Your task to perform on an android device: uninstall "Flipkart Online Shopping App" Image 0: 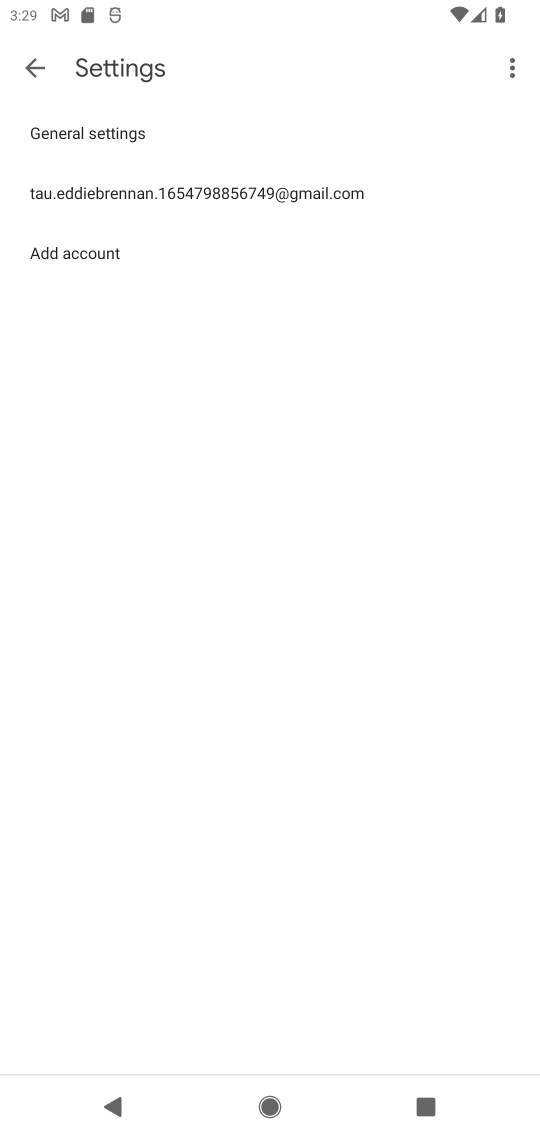
Step 0: click (18, 90)
Your task to perform on an android device: uninstall "Flipkart Online Shopping App" Image 1: 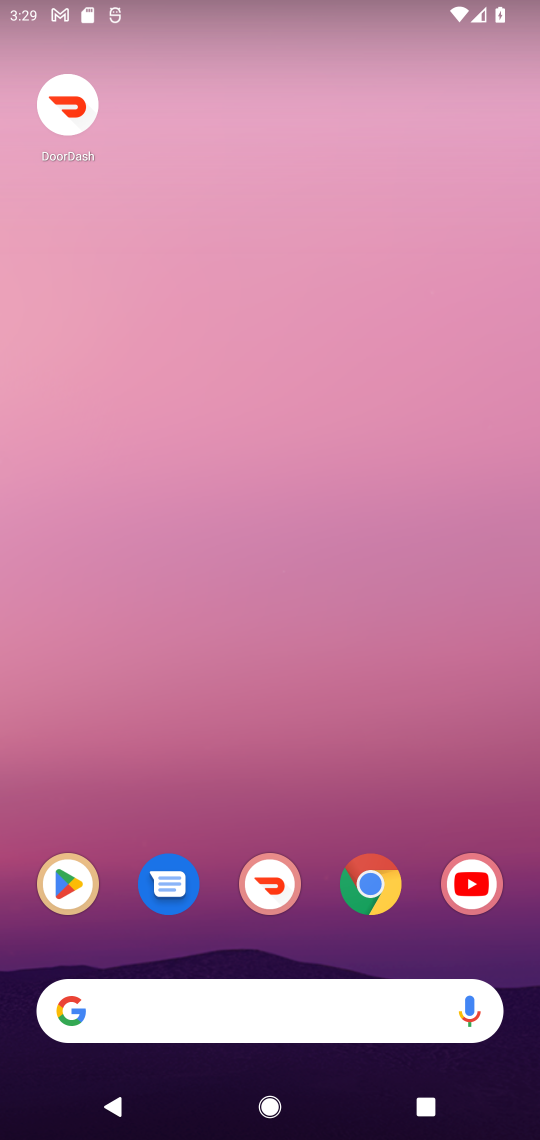
Step 1: drag from (308, 1026) to (197, 266)
Your task to perform on an android device: uninstall "Flipkart Online Shopping App" Image 2: 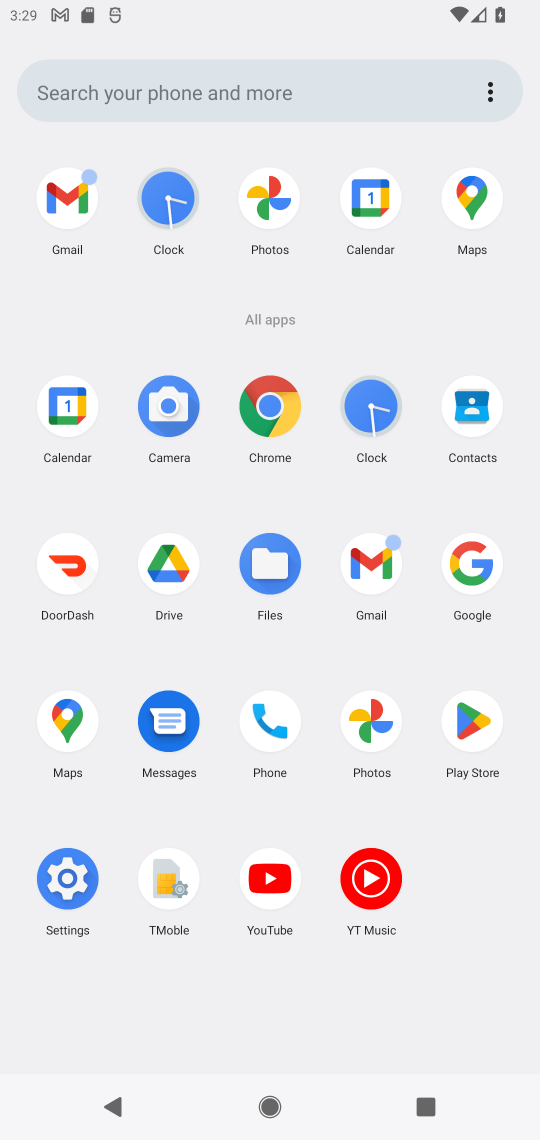
Step 2: click (470, 716)
Your task to perform on an android device: uninstall "Flipkart Online Shopping App" Image 3: 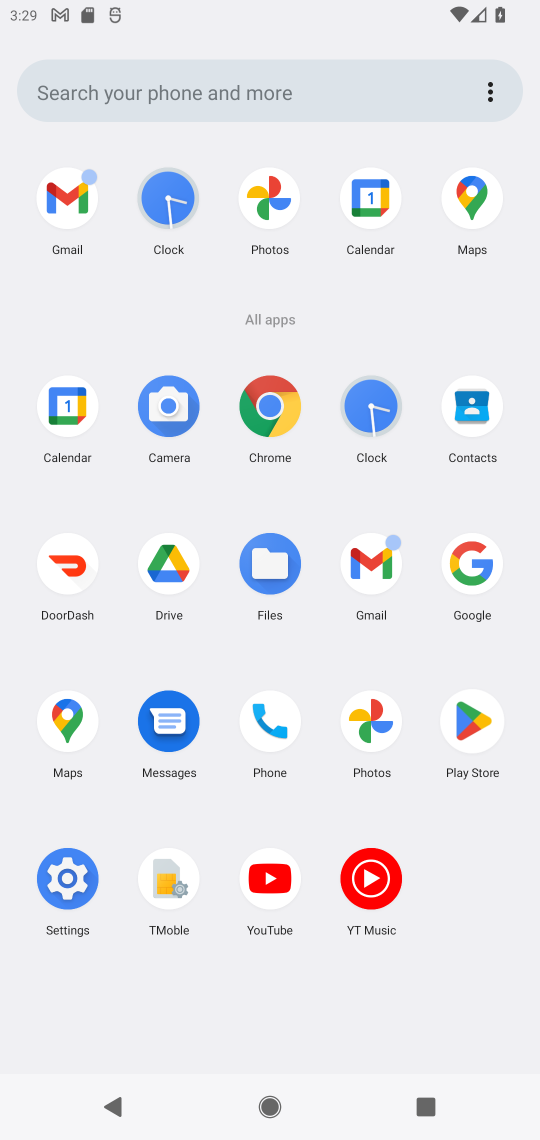
Step 3: click (469, 716)
Your task to perform on an android device: uninstall "Flipkart Online Shopping App" Image 4: 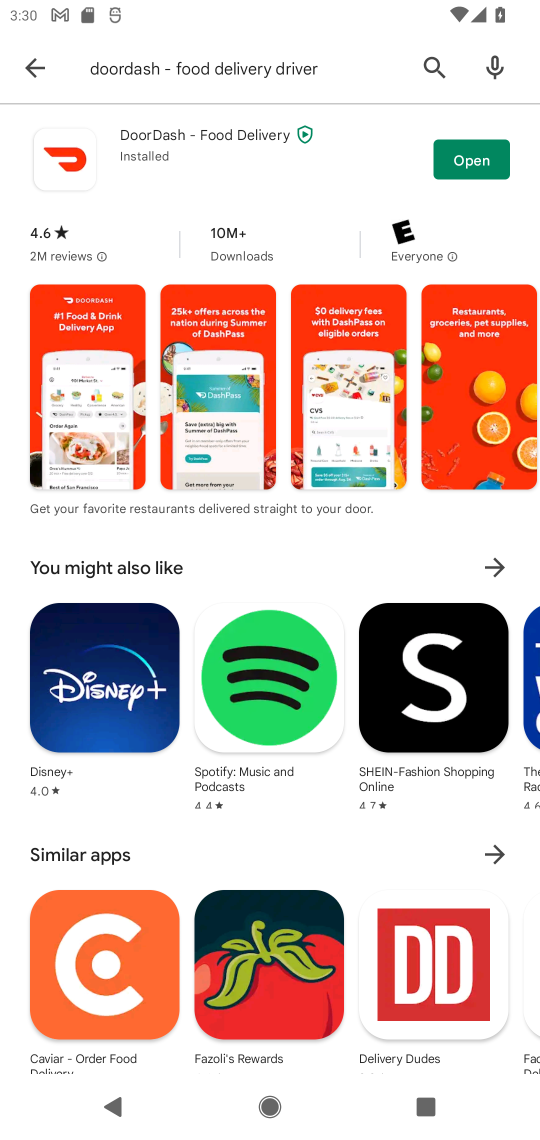
Step 4: click (28, 62)
Your task to perform on an android device: uninstall "Flipkart Online Shopping App" Image 5: 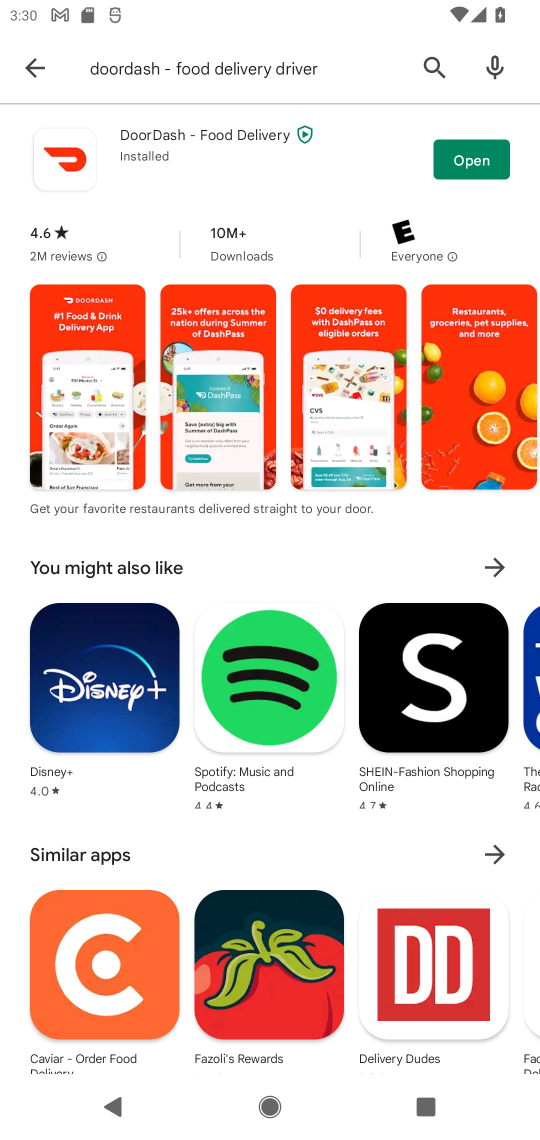
Step 5: click (25, 63)
Your task to perform on an android device: uninstall "Flipkart Online Shopping App" Image 6: 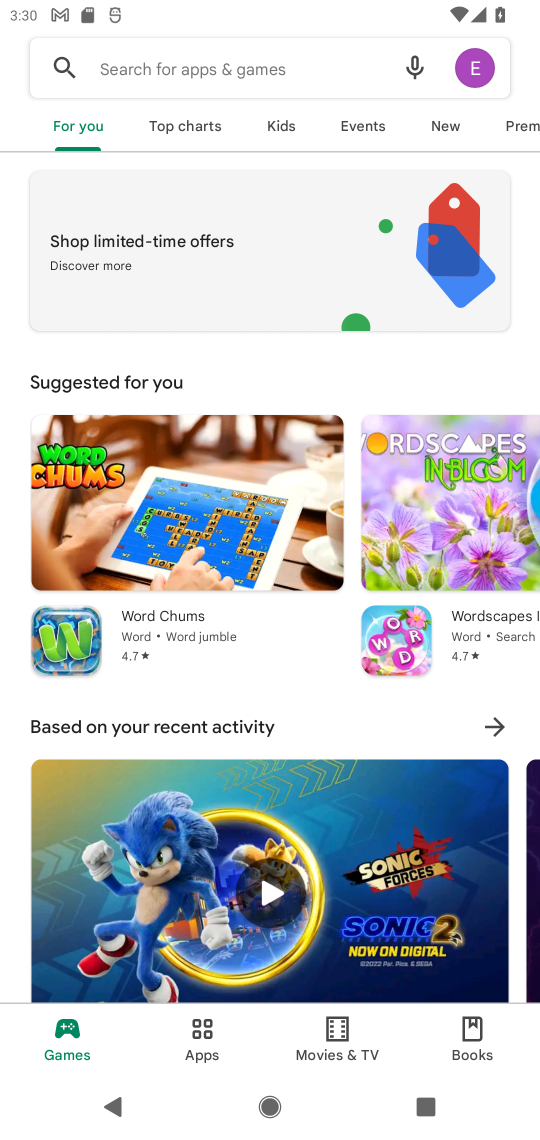
Step 6: click (145, 72)
Your task to perform on an android device: uninstall "Flipkart Online Shopping App" Image 7: 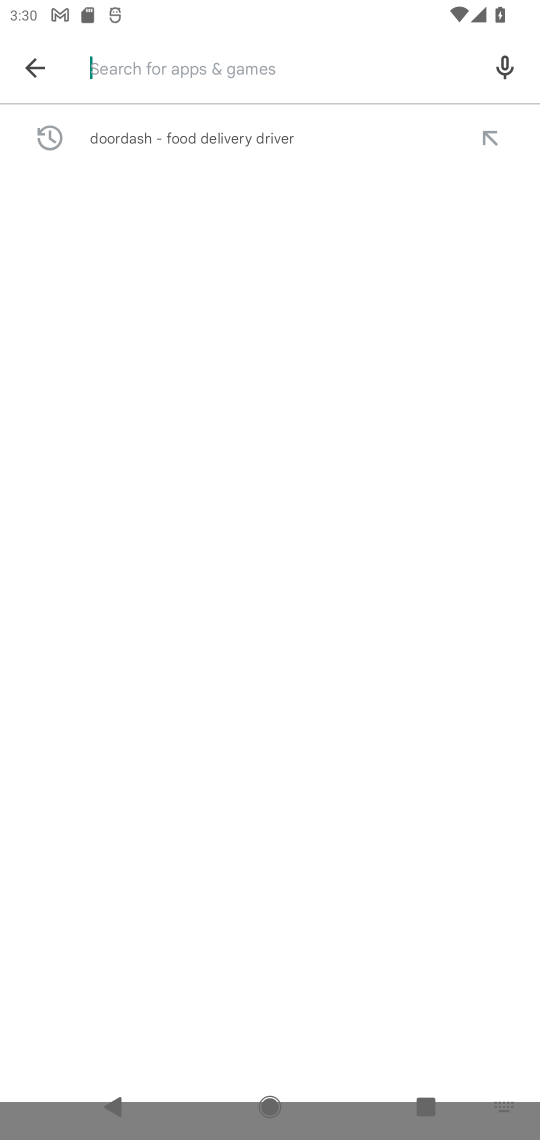
Step 7: click (160, 69)
Your task to perform on an android device: uninstall "Flipkart Online Shopping App" Image 8: 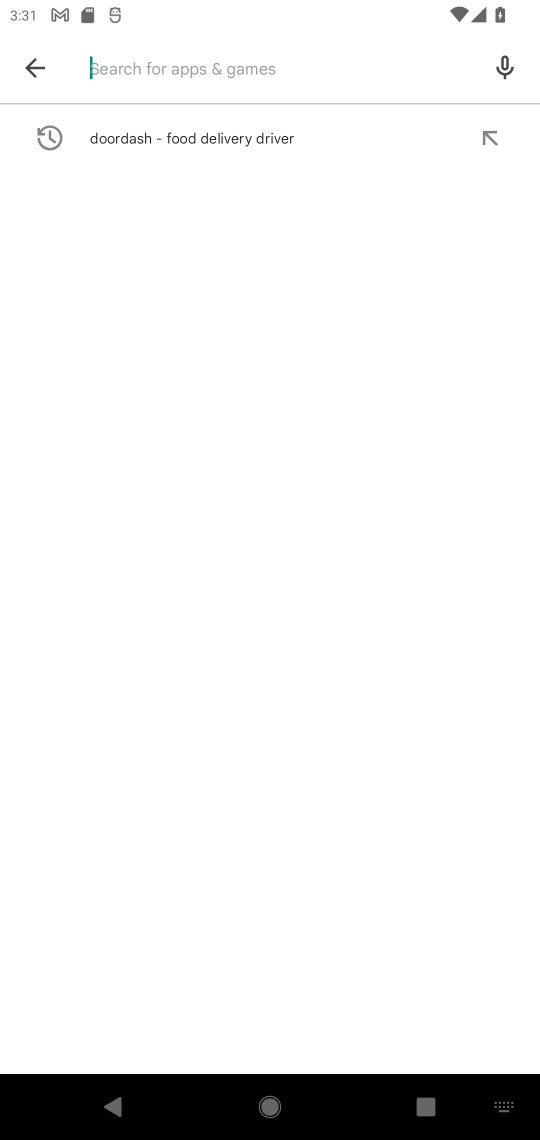
Step 8: type "flipkart online shopping app"
Your task to perform on an android device: uninstall "Flipkart Online Shopping App" Image 9: 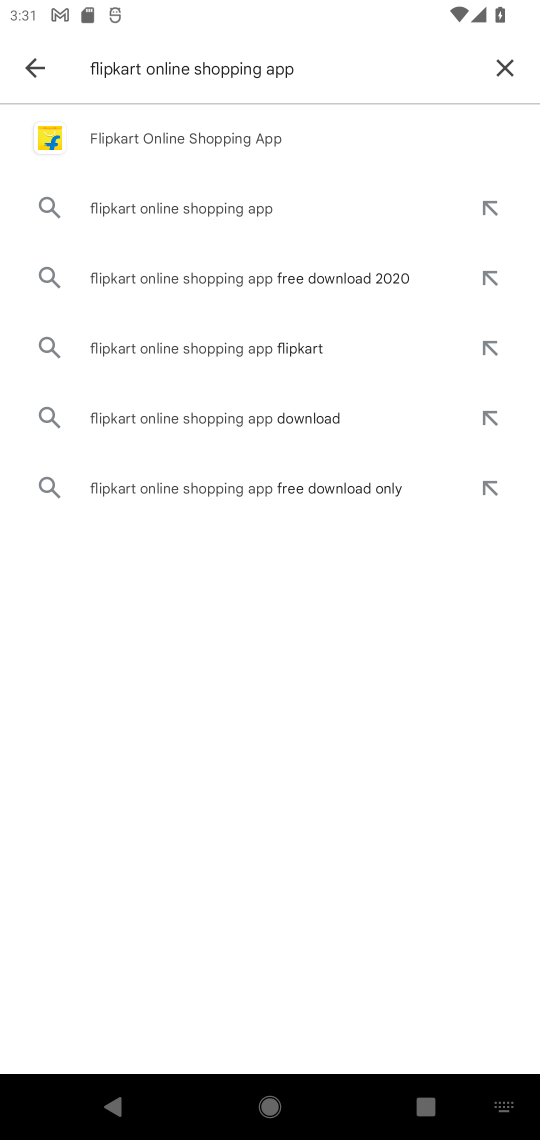
Step 9: click (136, 140)
Your task to perform on an android device: uninstall "Flipkart Online Shopping App" Image 10: 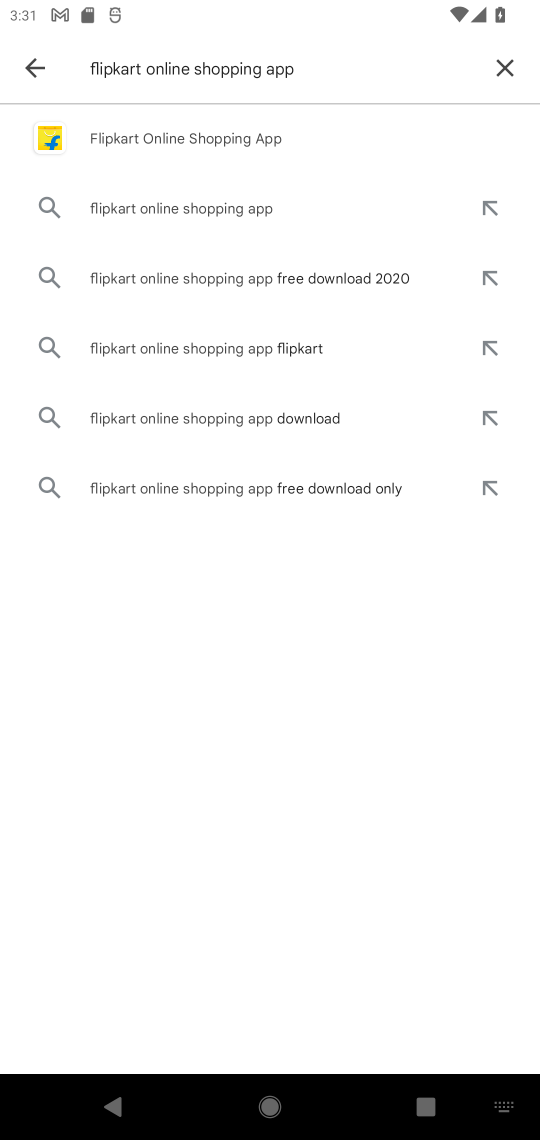
Step 10: click (136, 140)
Your task to perform on an android device: uninstall "Flipkart Online Shopping App" Image 11: 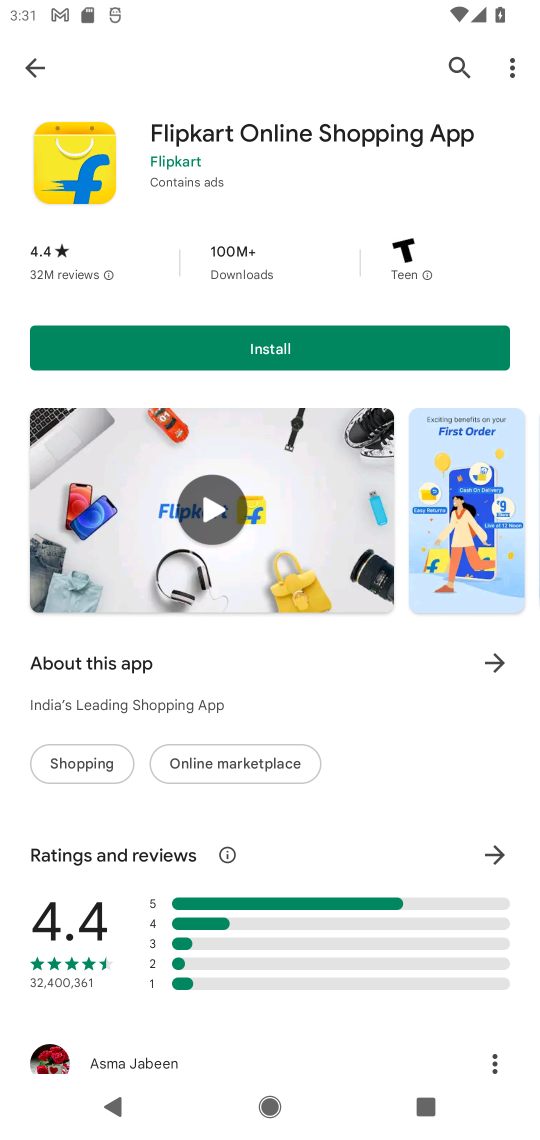
Step 11: click (302, 356)
Your task to perform on an android device: uninstall "Flipkart Online Shopping App" Image 12: 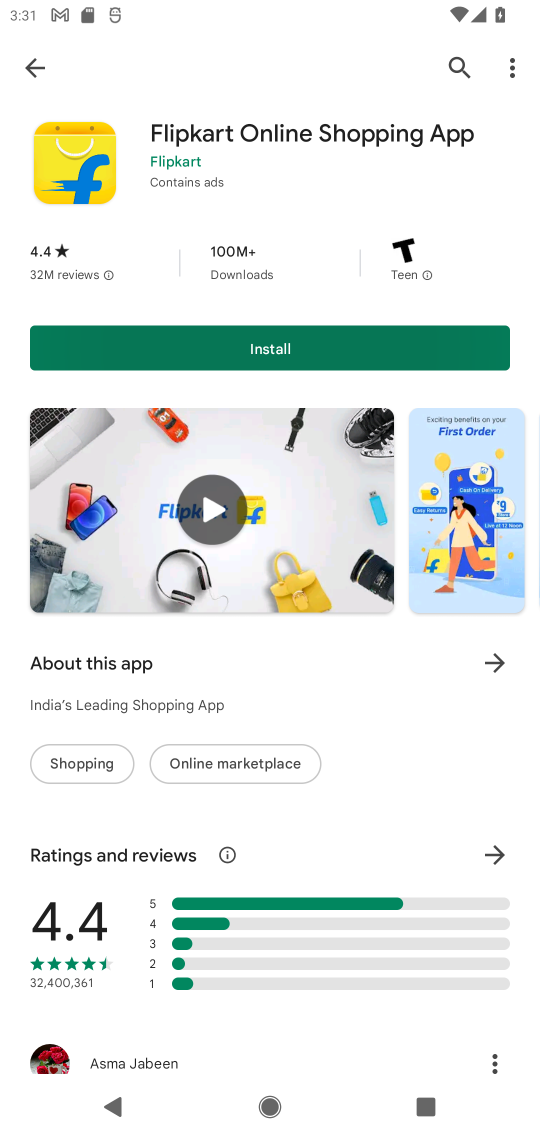
Step 12: click (302, 356)
Your task to perform on an android device: uninstall "Flipkart Online Shopping App" Image 13: 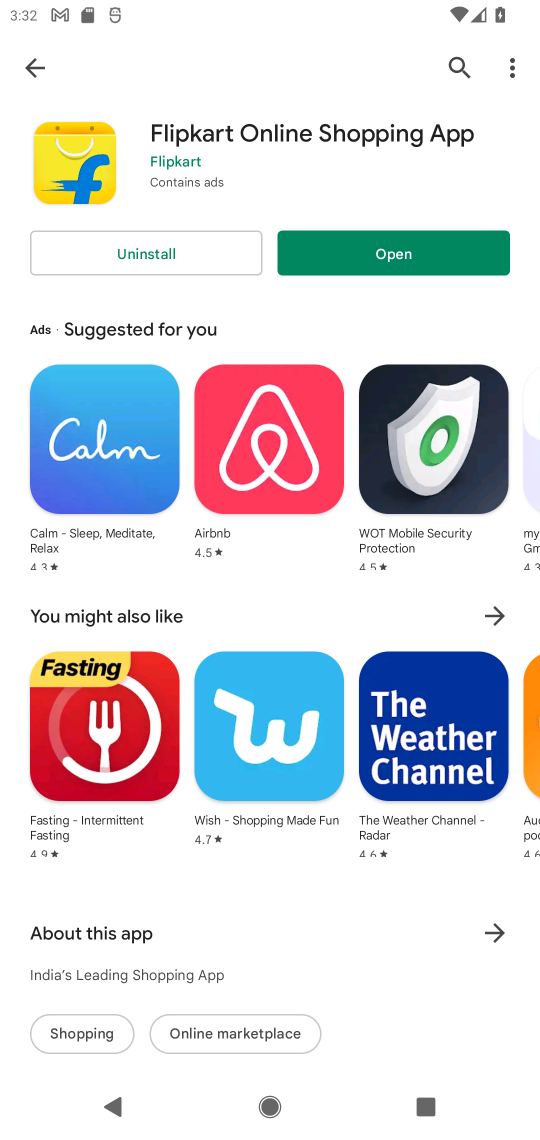
Step 13: click (390, 243)
Your task to perform on an android device: uninstall "Flipkart Online Shopping App" Image 14: 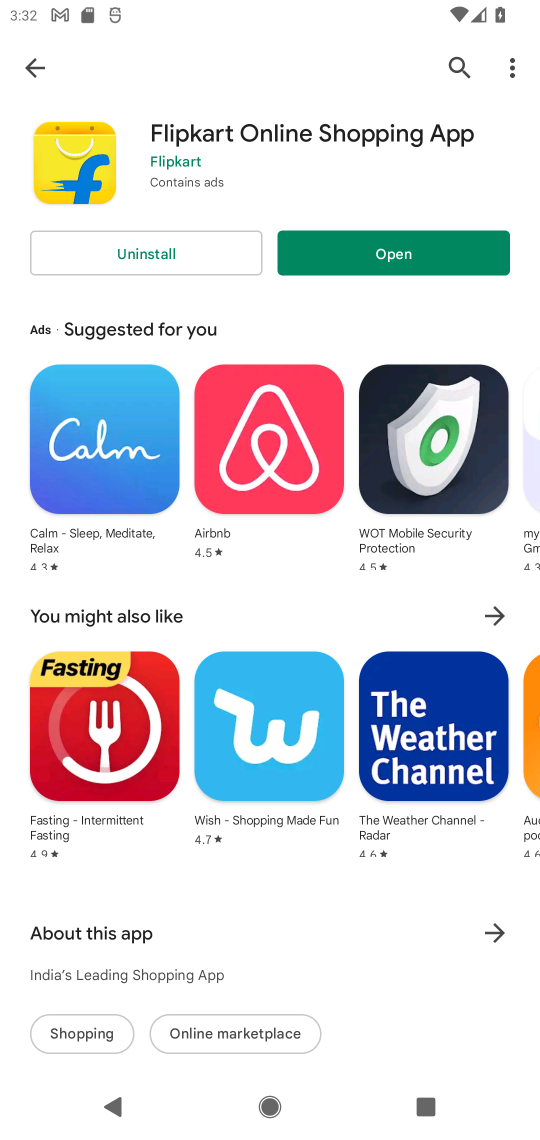
Step 14: click (390, 277)
Your task to perform on an android device: uninstall "Flipkart Online Shopping App" Image 15: 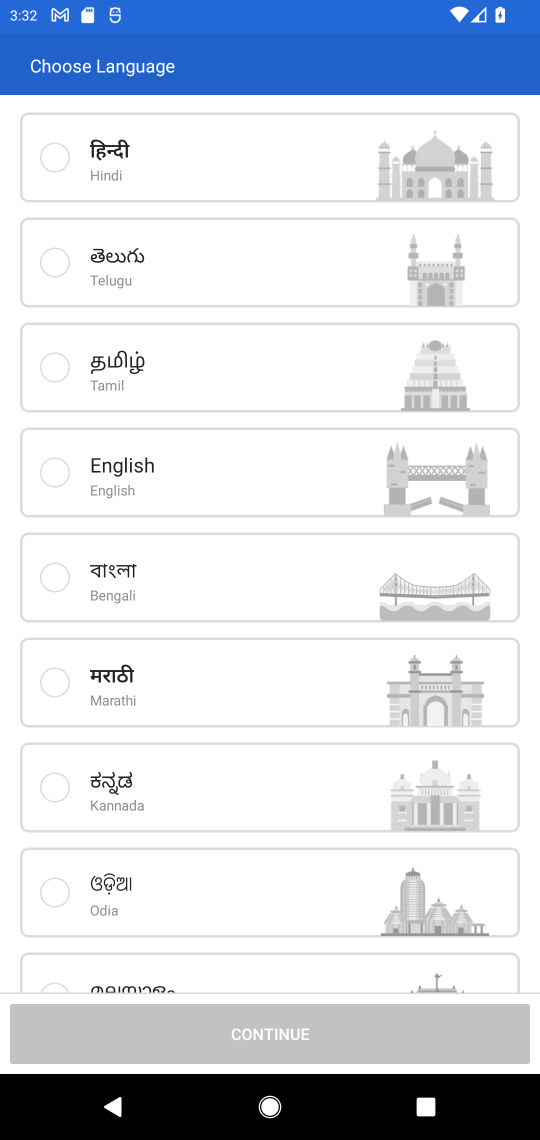
Step 15: press back button
Your task to perform on an android device: uninstall "Flipkart Online Shopping App" Image 16: 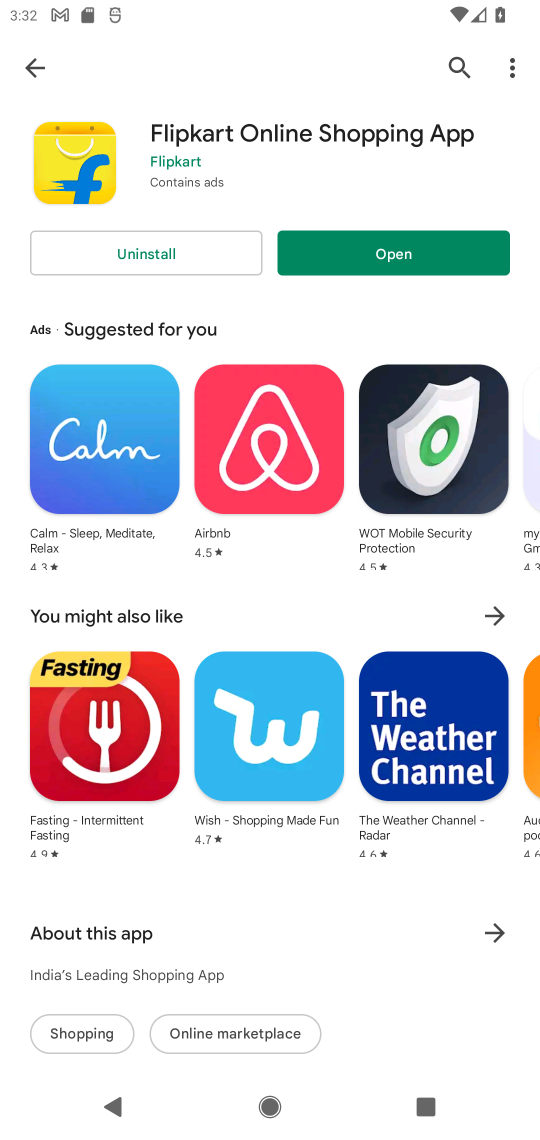
Step 16: click (178, 260)
Your task to perform on an android device: uninstall "Flipkart Online Shopping App" Image 17: 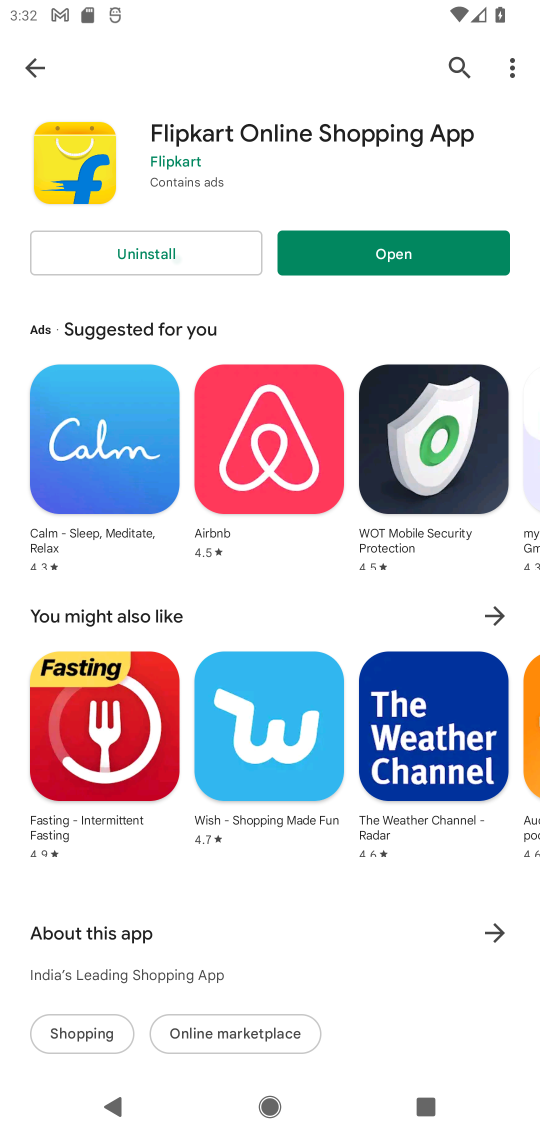
Step 17: click (175, 258)
Your task to perform on an android device: uninstall "Flipkart Online Shopping App" Image 18: 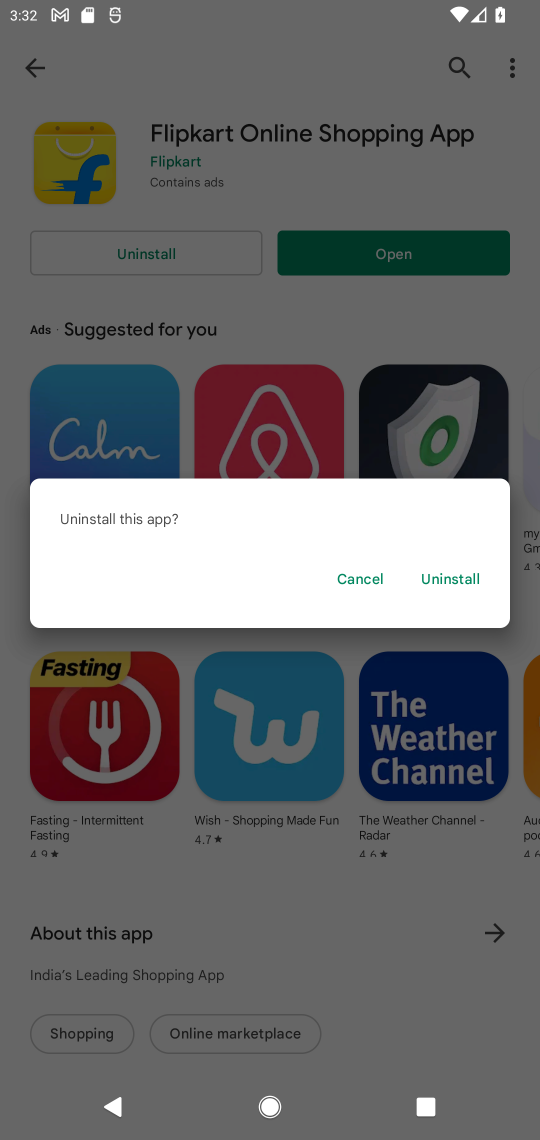
Step 18: click (442, 581)
Your task to perform on an android device: uninstall "Flipkart Online Shopping App" Image 19: 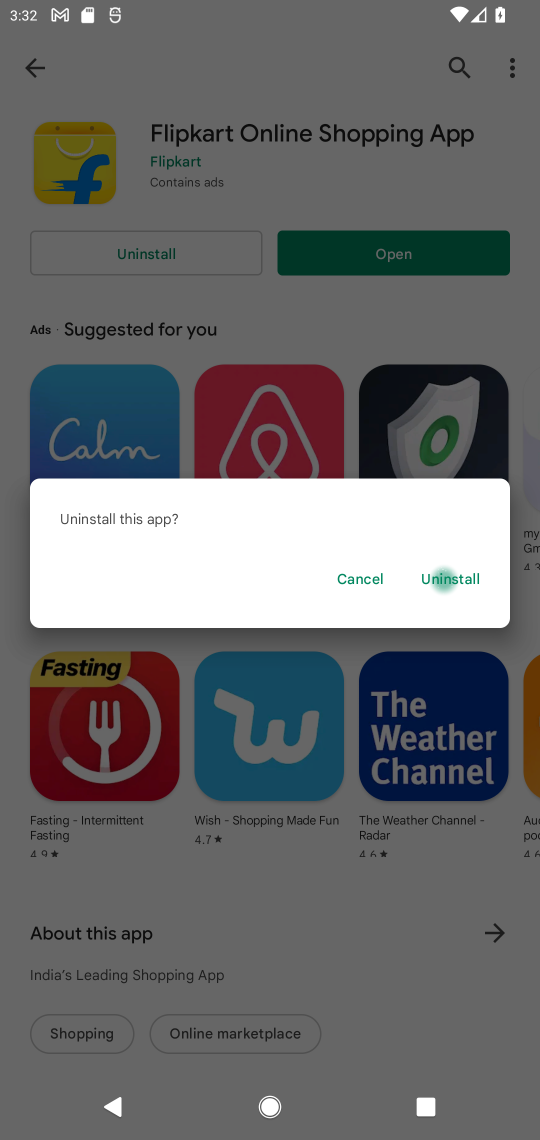
Step 19: click (439, 577)
Your task to perform on an android device: uninstall "Flipkart Online Shopping App" Image 20: 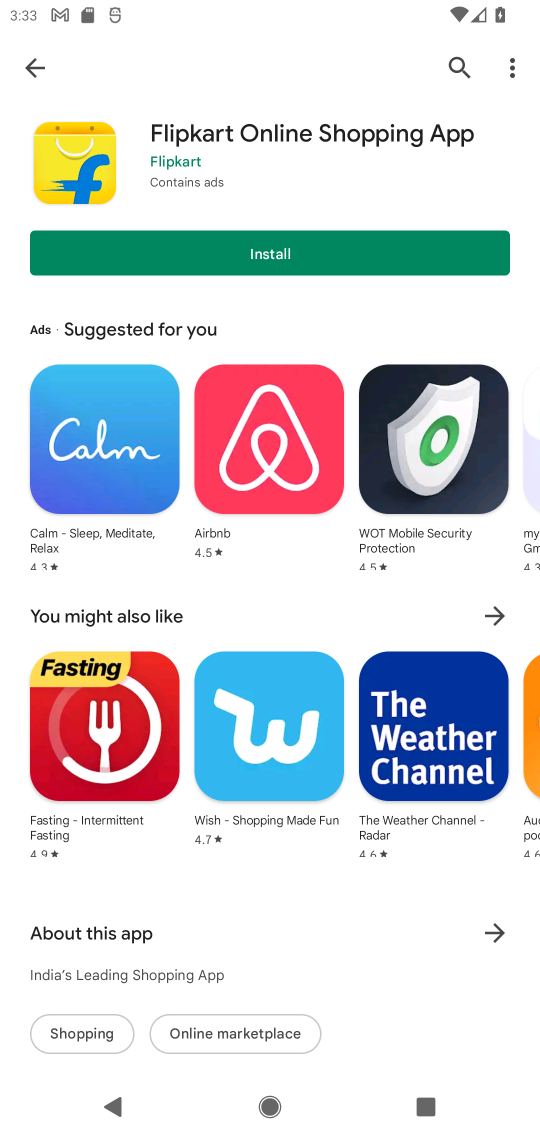
Step 20: click (317, 269)
Your task to perform on an android device: uninstall "Flipkart Online Shopping App" Image 21: 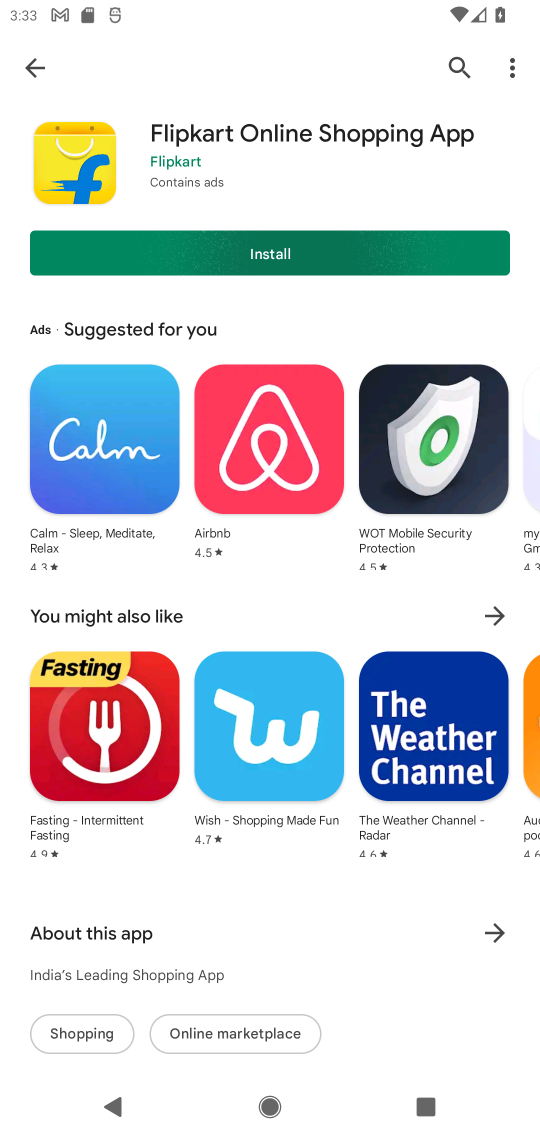
Step 21: click (331, 263)
Your task to perform on an android device: uninstall "Flipkart Online Shopping App" Image 22: 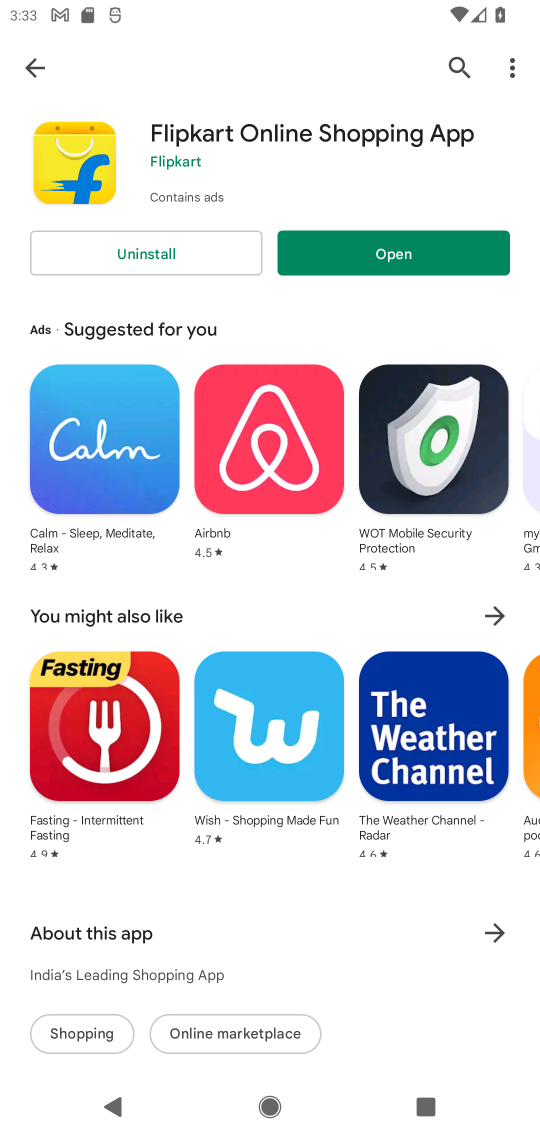
Step 22: click (125, 242)
Your task to perform on an android device: uninstall "Flipkart Online Shopping App" Image 23: 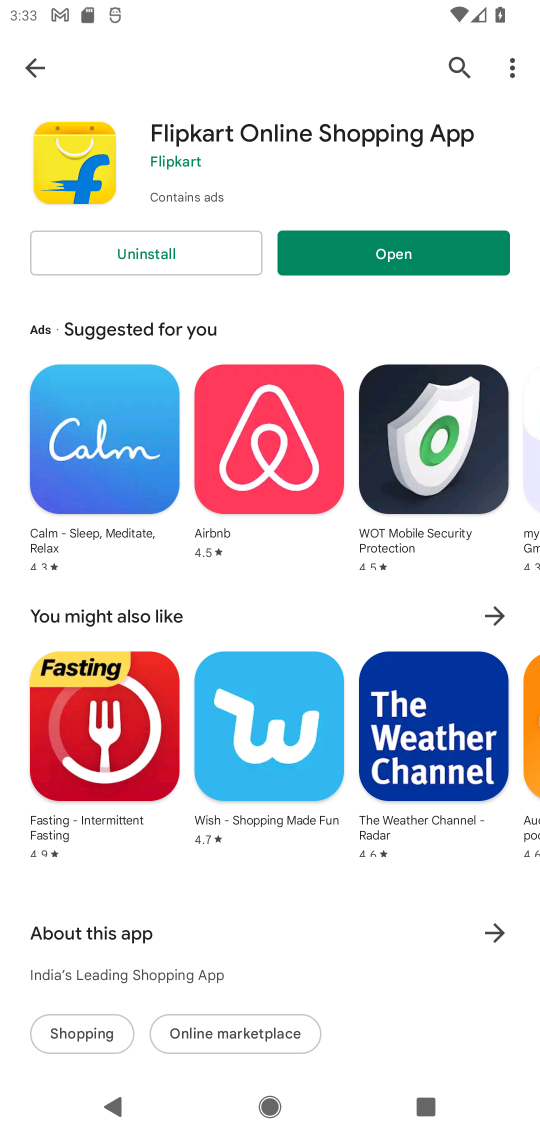
Step 23: click (124, 241)
Your task to perform on an android device: uninstall "Flipkart Online Shopping App" Image 24: 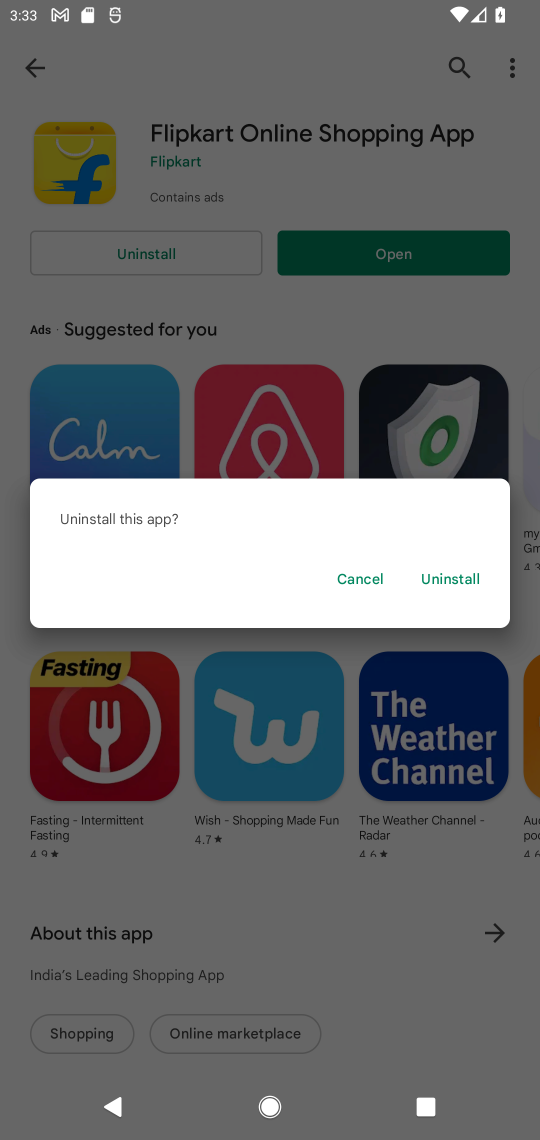
Step 24: click (463, 576)
Your task to perform on an android device: uninstall "Flipkart Online Shopping App" Image 25: 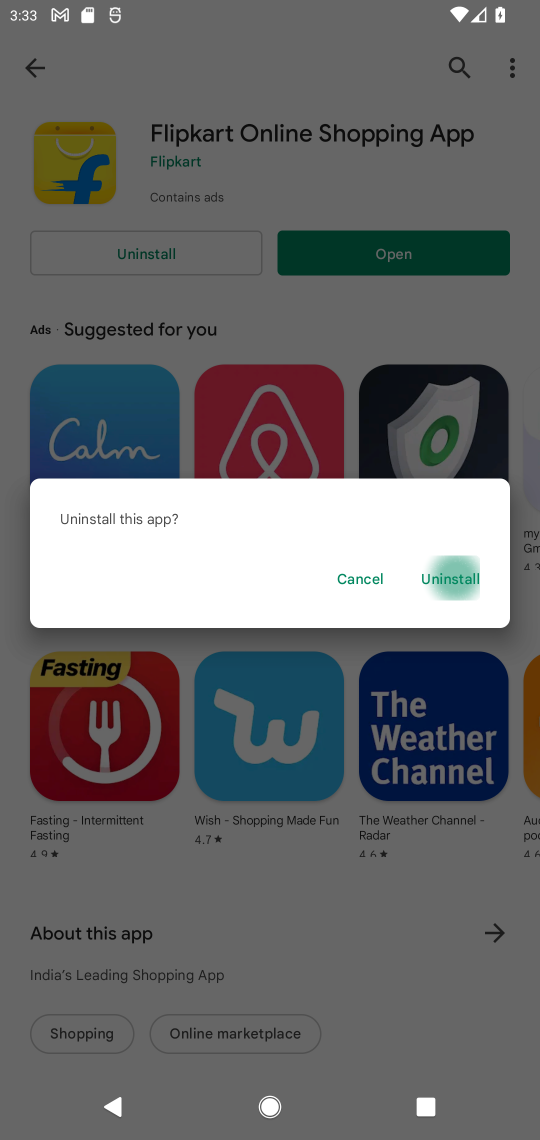
Step 25: click (466, 573)
Your task to perform on an android device: uninstall "Flipkart Online Shopping App" Image 26: 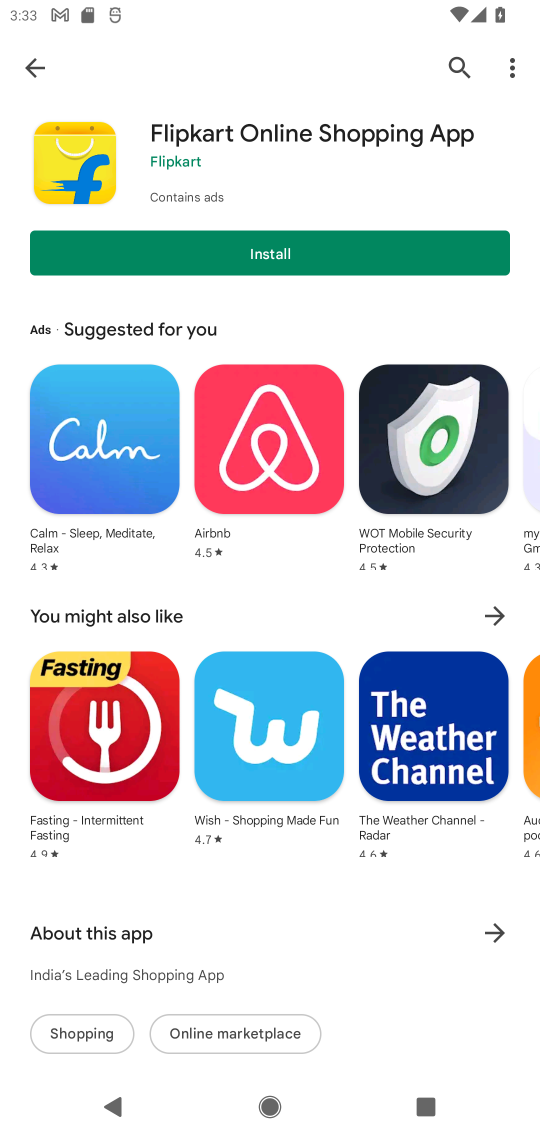
Step 26: task complete